Your task to perform on an android device: Open Android settings Image 0: 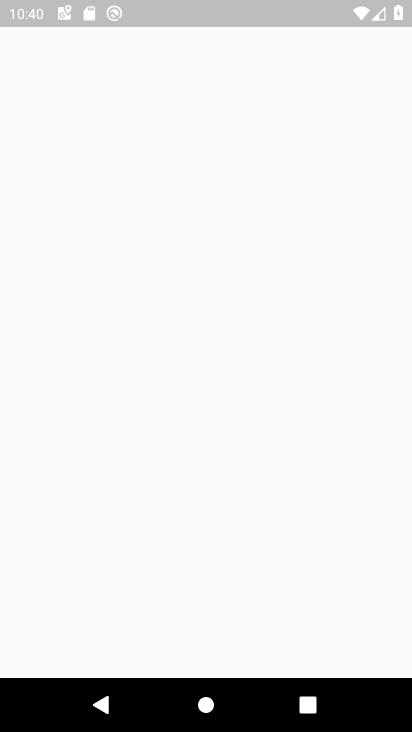
Step 0: press home button
Your task to perform on an android device: Open Android settings Image 1: 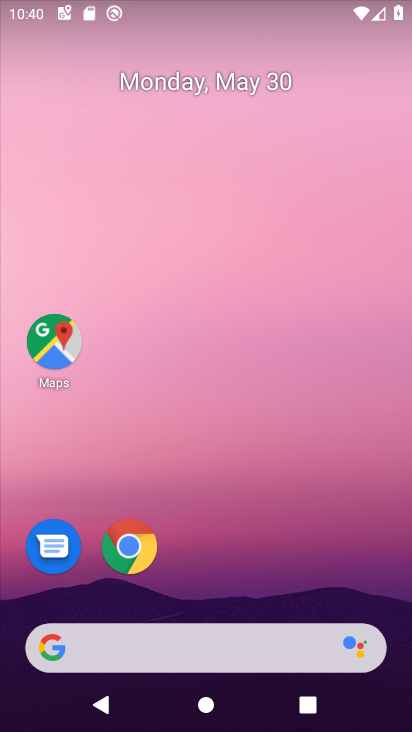
Step 1: drag from (217, 601) to (238, 283)
Your task to perform on an android device: Open Android settings Image 2: 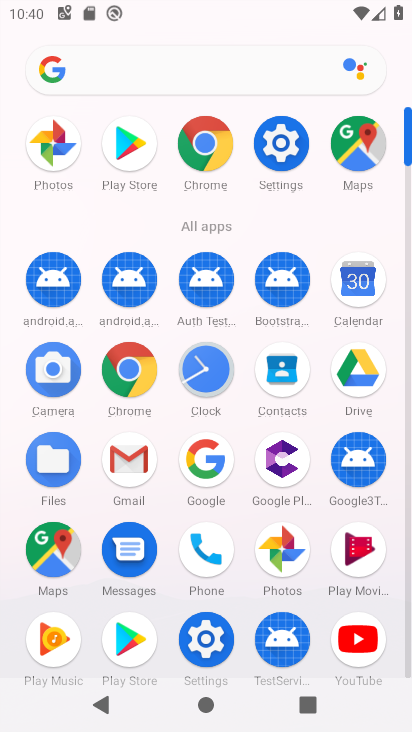
Step 2: click (276, 143)
Your task to perform on an android device: Open Android settings Image 3: 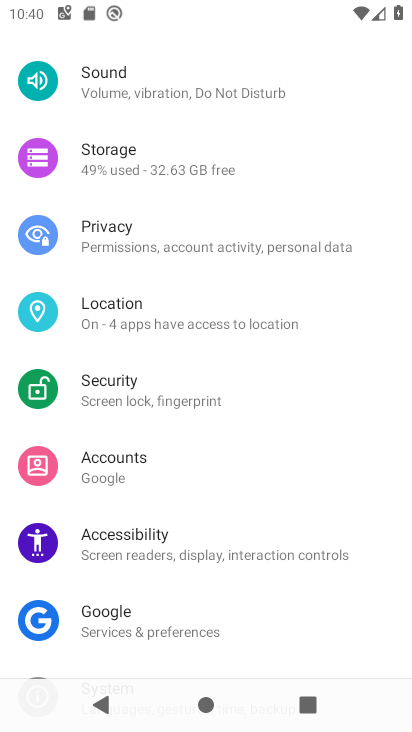
Step 3: drag from (208, 521) to (227, 391)
Your task to perform on an android device: Open Android settings Image 4: 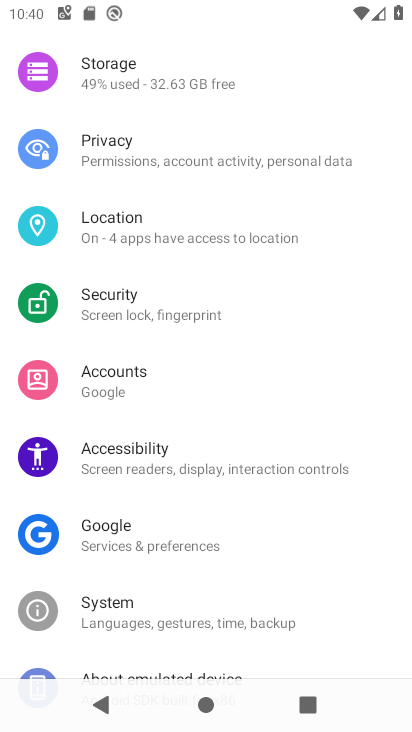
Step 4: drag from (214, 524) to (244, 247)
Your task to perform on an android device: Open Android settings Image 5: 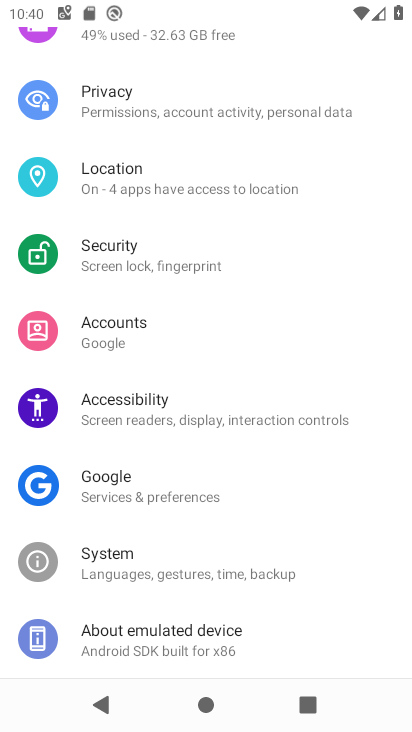
Step 5: click (138, 645)
Your task to perform on an android device: Open Android settings Image 6: 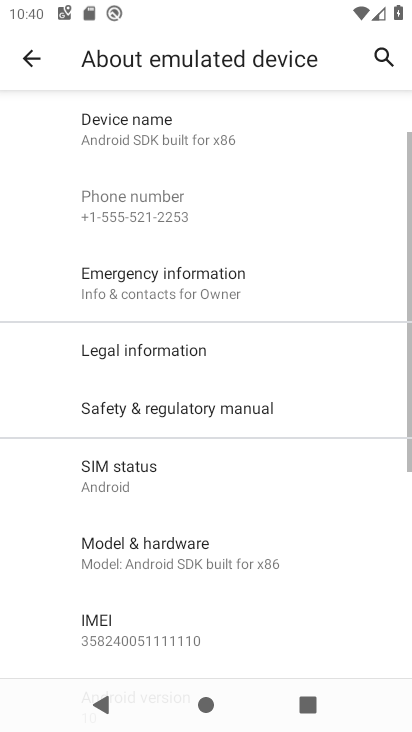
Step 6: drag from (182, 544) to (201, 289)
Your task to perform on an android device: Open Android settings Image 7: 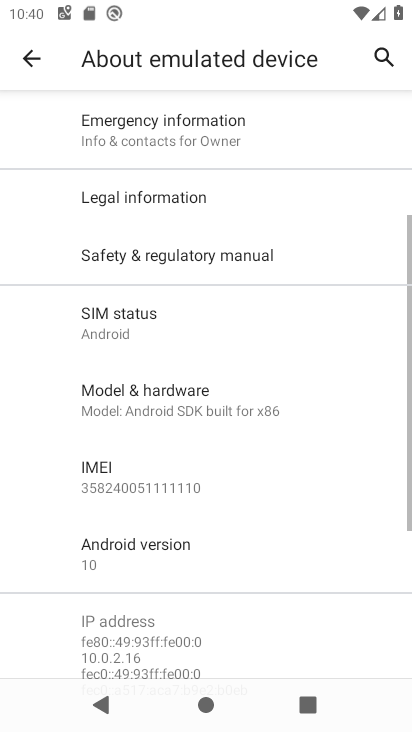
Step 7: click (141, 532)
Your task to perform on an android device: Open Android settings Image 8: 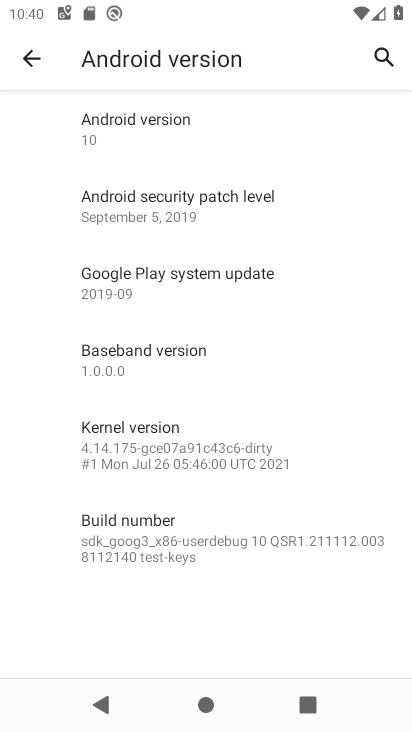
Step 8: task complete